Your task to perform on an android device: Clear the shopping cart on costco.com. Search for "bose soundsport free" on costco.com, select the first entry, add it to the cart, then select checkout. Image 0: 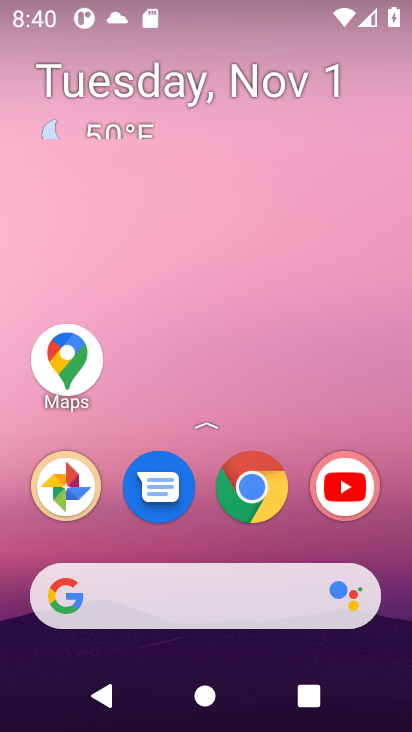
Step 0: drag from (206, 426) to (258, 1)
Your task to perform on an android device: Clear the shopping cart on costco.com. Search for "bose soundsport free" on costco.com, select the first entry, add it to the cart, then select checkout. Image 1: 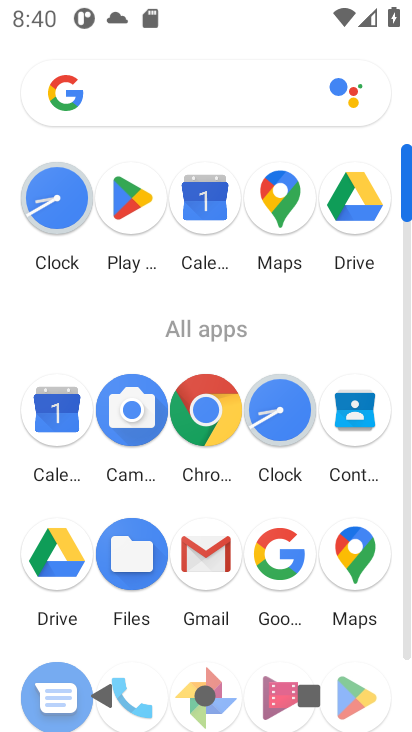
Step 1: click (203, 399)
Your task to perform on an android device: Clear the shopping cart on costco.com. Search for "bose soundsport free" on costco.com, select the first entry, add it to the cart, then select checkout. Image 2: 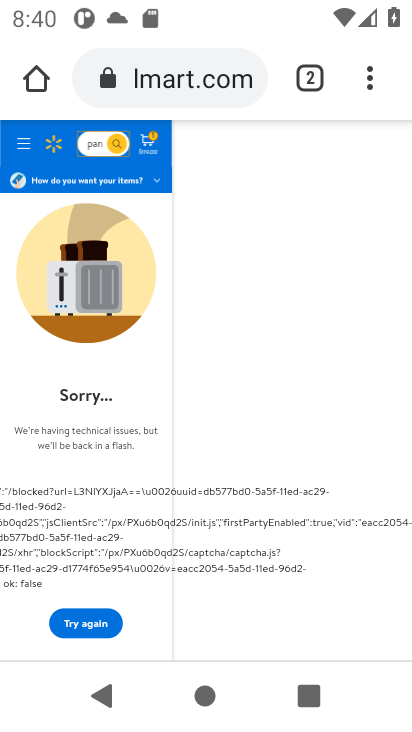
Step 2: click (172, 73)
Your task to perform on an android device: Clear the shopping cart on costco.com. Search for "bose soundsport free" on costco.com, select the first entry, add it to the cart, then select checkout. Image 3: 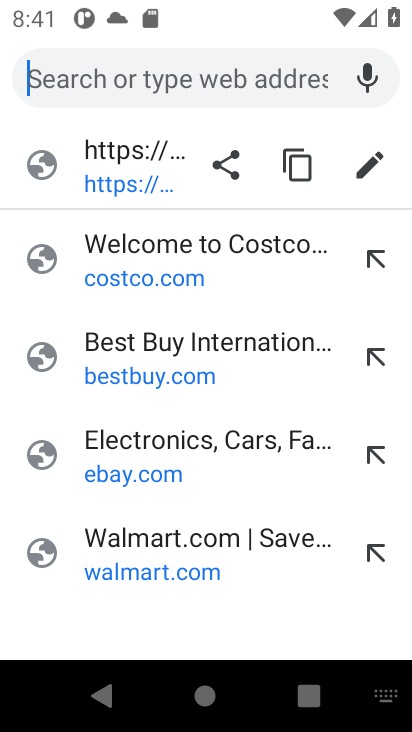
Step 3: type "costco.com"
Your task to perform on an android device: Clear the shopping cart on costco.com. Search for "bose soundsport free" on costco.com, select the first entry, add it to the cart, then select checkout. Image 4: 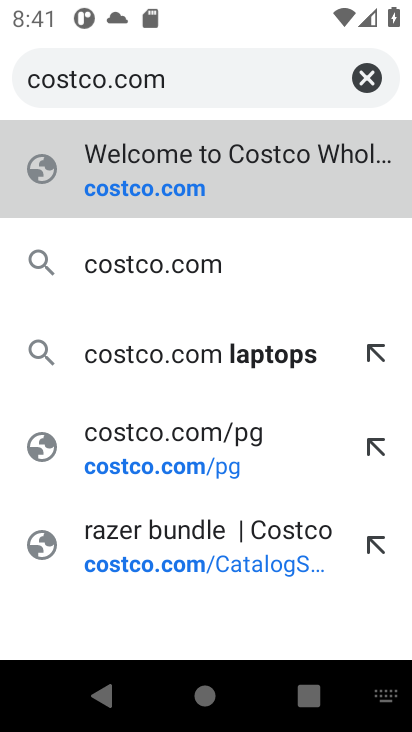
Step 4: click (154, 170)
Your task to perform on an android device: Clear the shopping cart on costco.com. Search for "bose soundsport free" on costco.com, select the first entry, add it to the cart, then select checkout. Image 5: 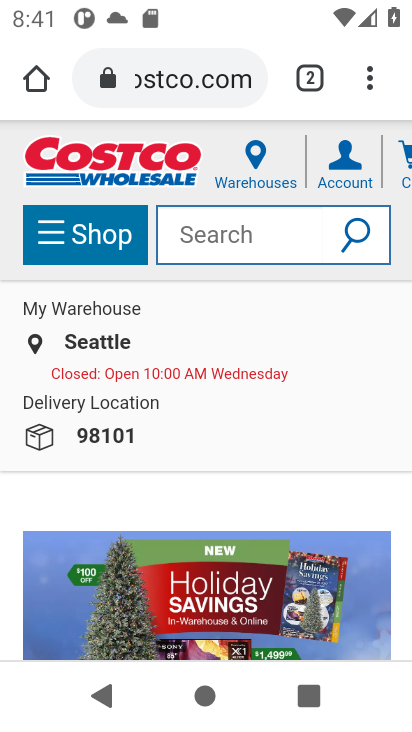
Step 5: click (208, 226)
Your task to perform on an android device: Clear the shopping cart on costco.com. Search for "bose soundsport free" on costco.com, select the first entry, add it to the cart, then select checkout. Image 6: 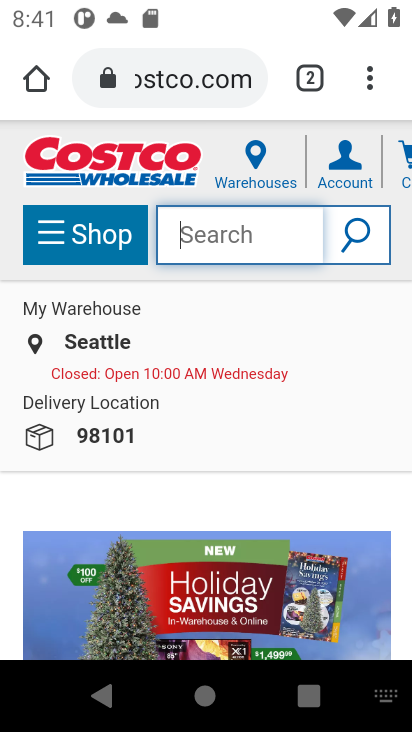
Step 6: type "bose soundsport free"
Your task to perform on an android device: Clear the shopping cart on costco.com. Search for "bose soundsport free" on costco.com, select the first entry, add it to the cart, then select checkout. Image 7: 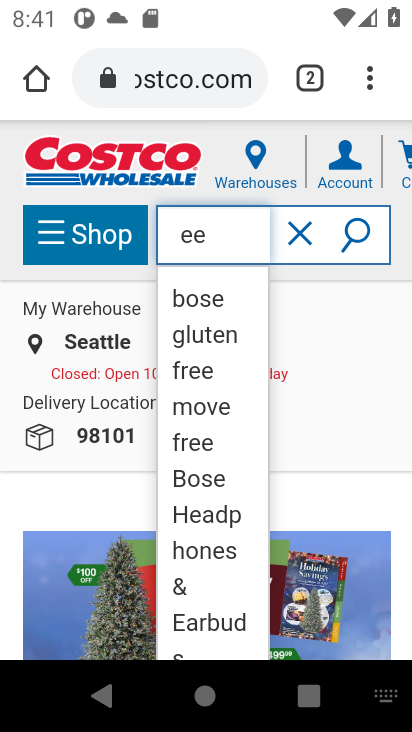
Step 7: click (204, 320)
Your task to perform on an android device: Clear the shopping cart on costco.com. Search for "bose soundsport free" on costco.com, select the first entry, add it to the cart, then select checkout. Image 8: 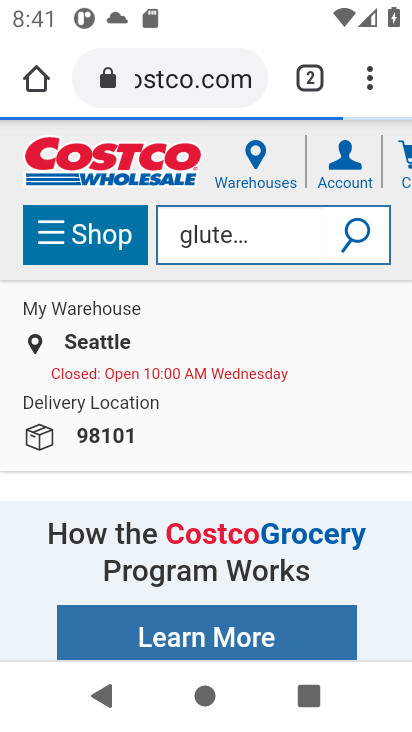
Step 8: drag from (222, 509) to (235, 247)
Your task to perform on an android device: Clear the shopping cart on costco.com. Search for "bose soundsport free" on costco.com, select the first entry, add it to the cart, then select checkout. Image 9: 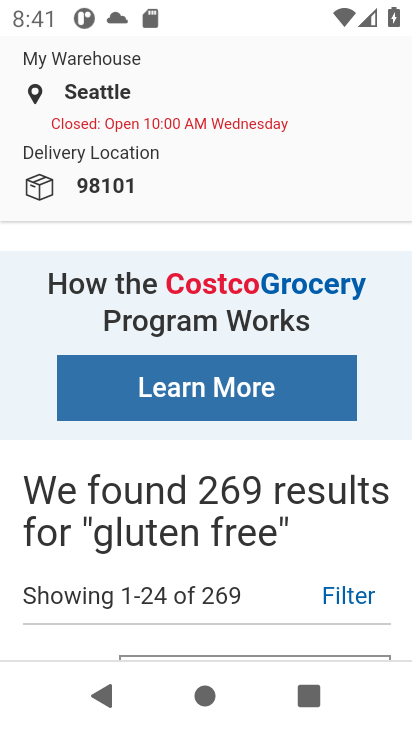
Step 9: drag from (231, 621) to (235, 221)
Your task to perform on an android device: Clear the shopping cart on costco.com. Search for "bose soundsport free" on costco.com, select the first entry, add it to the cart, then select checkout. Image 10: 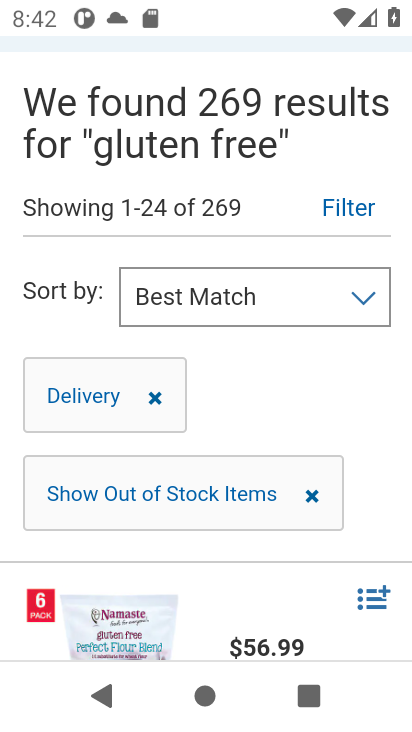
Step 10: drag from (233, 605) to (223, 248)
Your task to perform on an android device: Clear the shopping cart on costco.com. Search for "bose soundsport free" on costco.com, select the first entry, add it to the cart, then select checkout. Image 11: 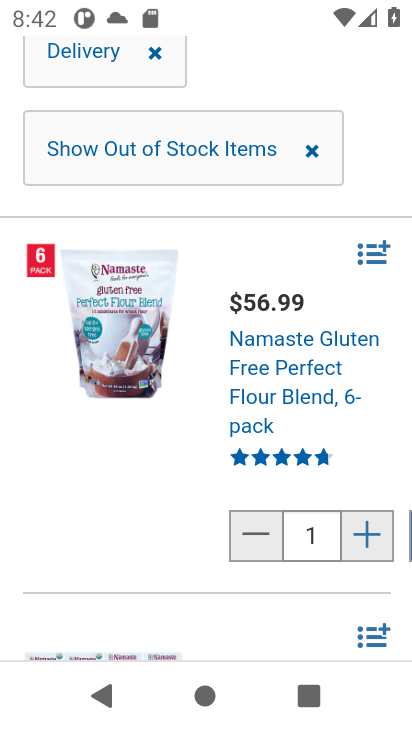
Step 11: drag from (205, 484) to (231, 266)
Your task to perform on an android device: Clear the shopping cart on costco.com. Search for "bose soundsport free" on costco.com, select the first entry, add it to the cart, then select checkout. Image 12: 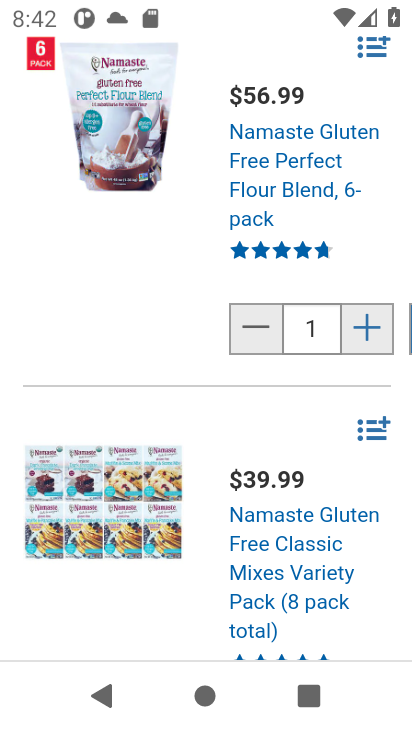
Step 12: press back button
Your task to perform on an android device: Clear the shopping cart on costco.com. Search for "bose soundsport free" on costco.com, select the first entry, add it to the cart, then select checkout. Image 13: 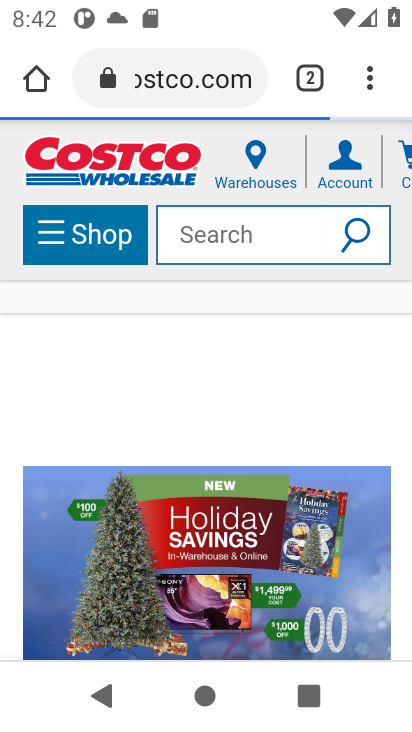
Step 13: click (268, 236)
Your task to perform on an android device: Clear the shopping cart on costco.com. Search for "bose soundsport free" on costco.com, select the first entry, add it to the cart, then select checkout. Image 14: 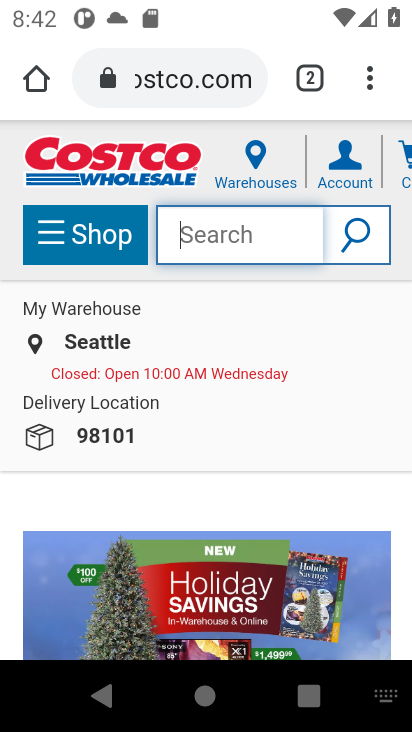
Step 14: type "bose soundsport free"
Your task to perform on an android device: Clear the shopping cart on costco.com. Search for "bose soundsport free" on costco.com, select the first entry, add it to the cart, then select checkout. Image 15: 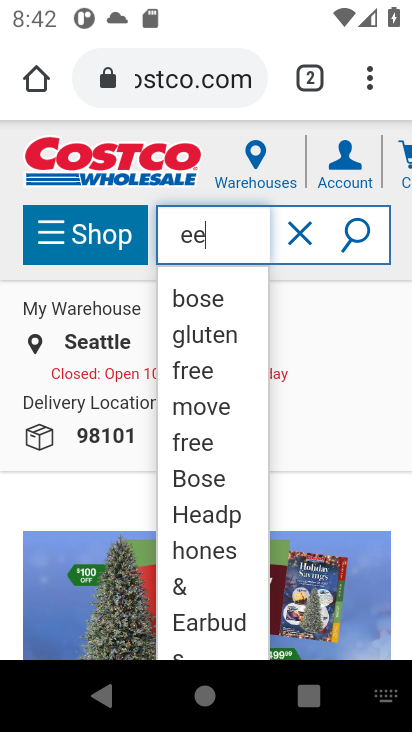
Step 15: drag from (350, 434) to (331, 224)
Your task to perform on an android device: Clear the shopping cart on costco.com. Search for "bose soundsport free" on costco.com, select the first entry, add it to the cart, then select checkout. Image 16: 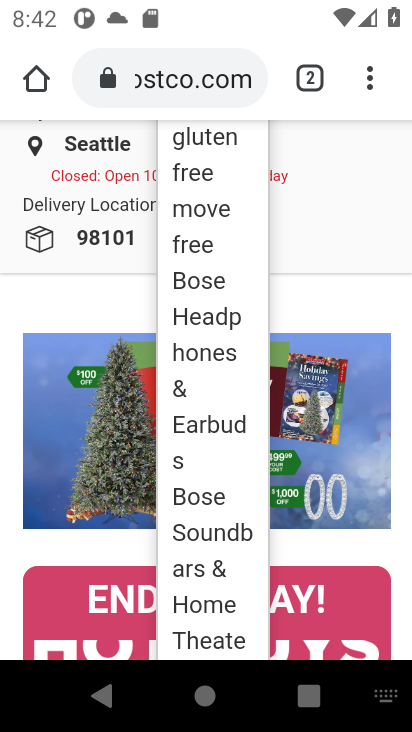
Step 16: click (209, 530)
Your task to perform on an android device: Clear the shopping cart on costco.com. Search for "bose soundsport free" on costco.com, select the first entry, add it to the cart, then select checkout. Image 17: 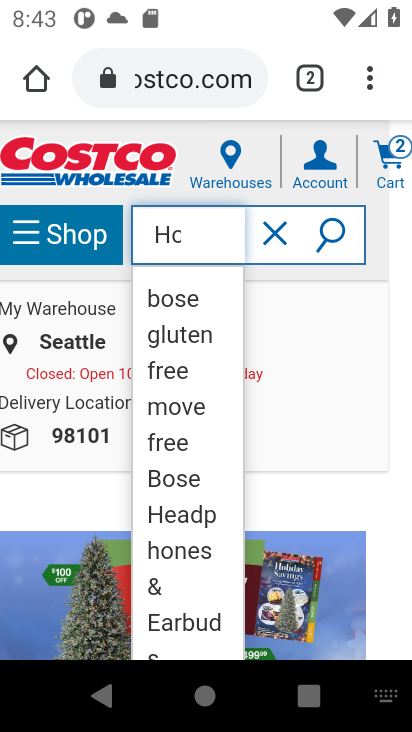
Step 17: click (336, 223)
Your task to perform on an android device: Clear the shopping cart on costco.com. Search for "bose soundsport free" on costco.com, select the first entry, add it to the cart, then select checkout. Image 18: 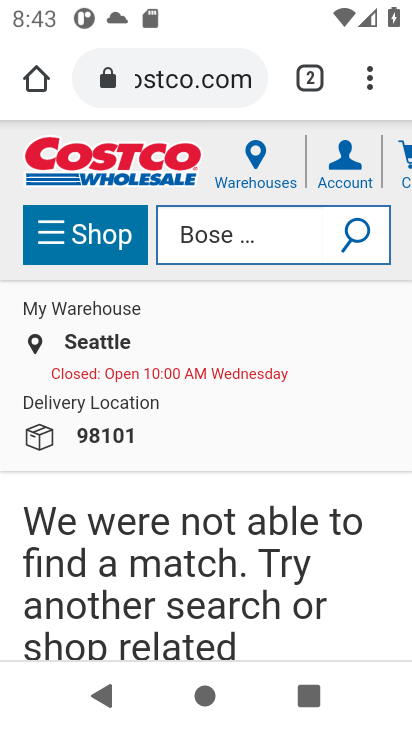
Step 18: task complete